Your task to perform on an android device: change notifications settings Image 0: 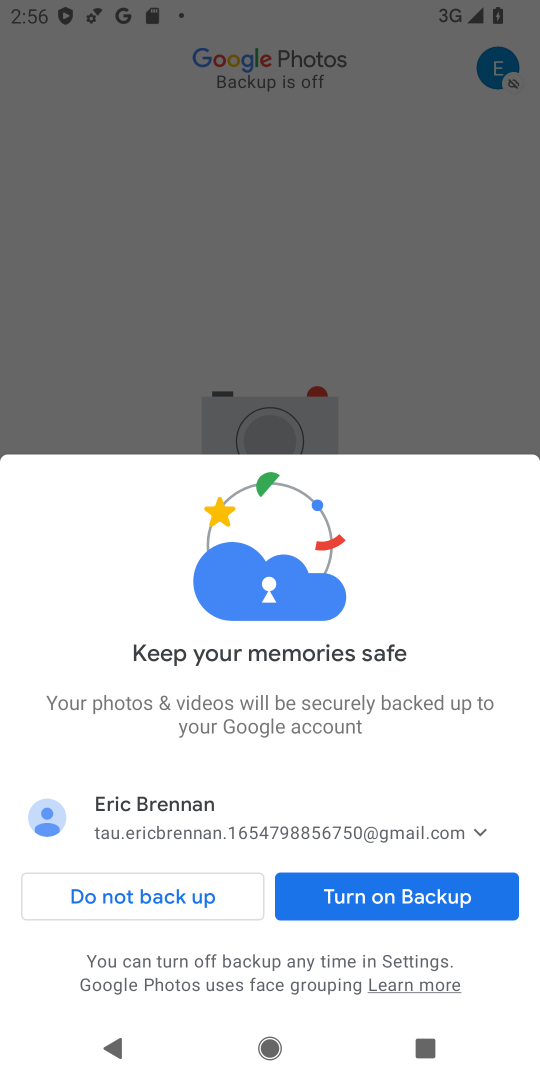
Step 0: press back button
Your task to perform on an android device: change notifications settings Image 1: 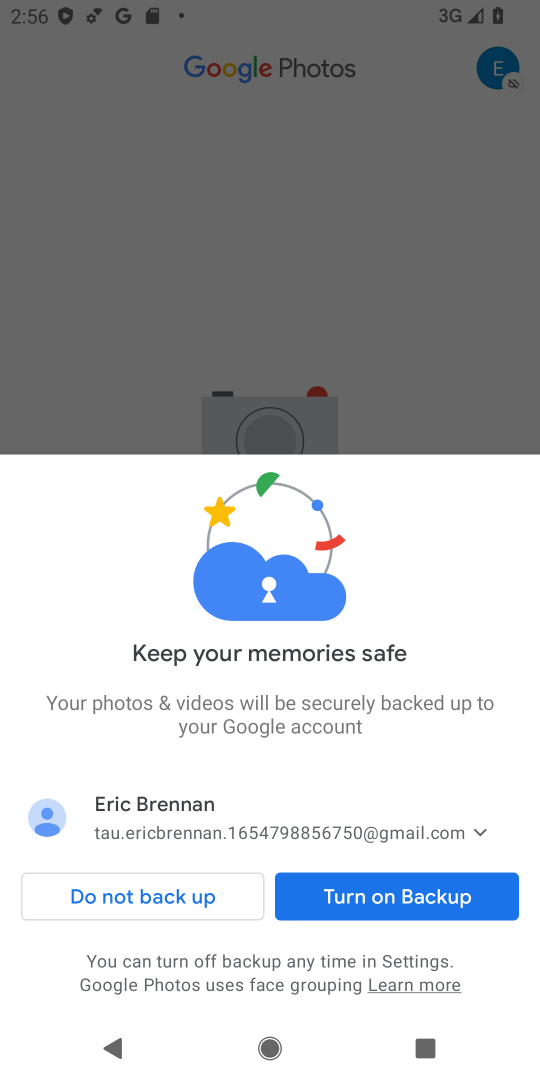
Step 1: press home button
Your task to perform on an android device: change notifications settings Image 2: 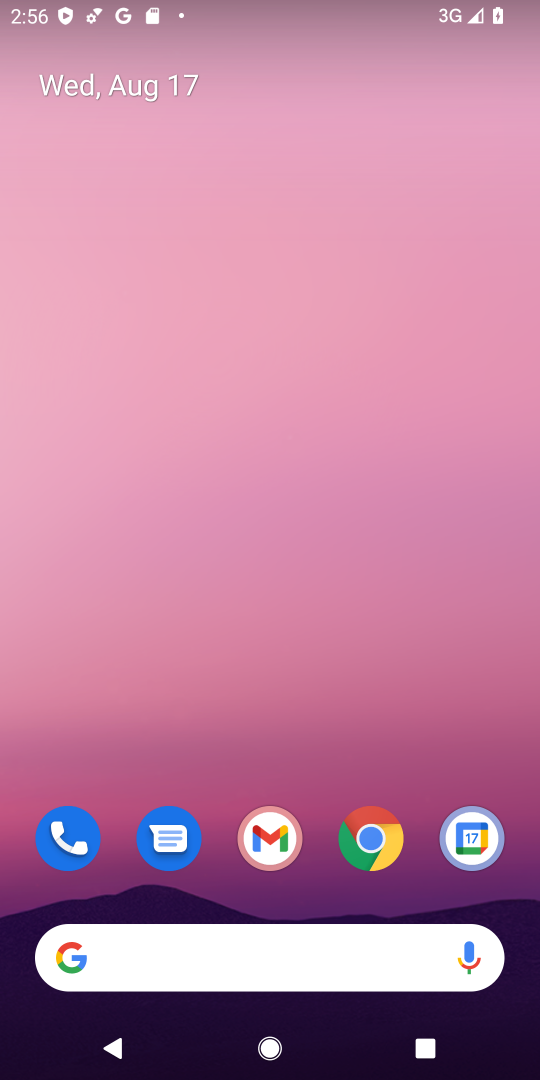
Step 2: drag from (221, 923) to (415, 87)
Your task to perform on an android device: change notifications settings Image 3: 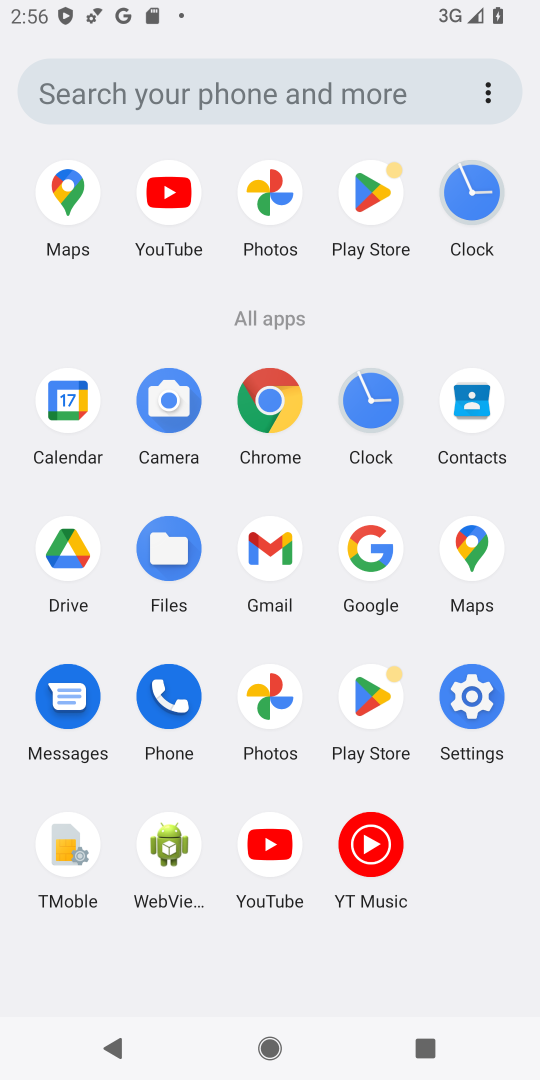
Step 3: click (474, 696)
Your task to perform on an android device: change notifications settings Image 4: 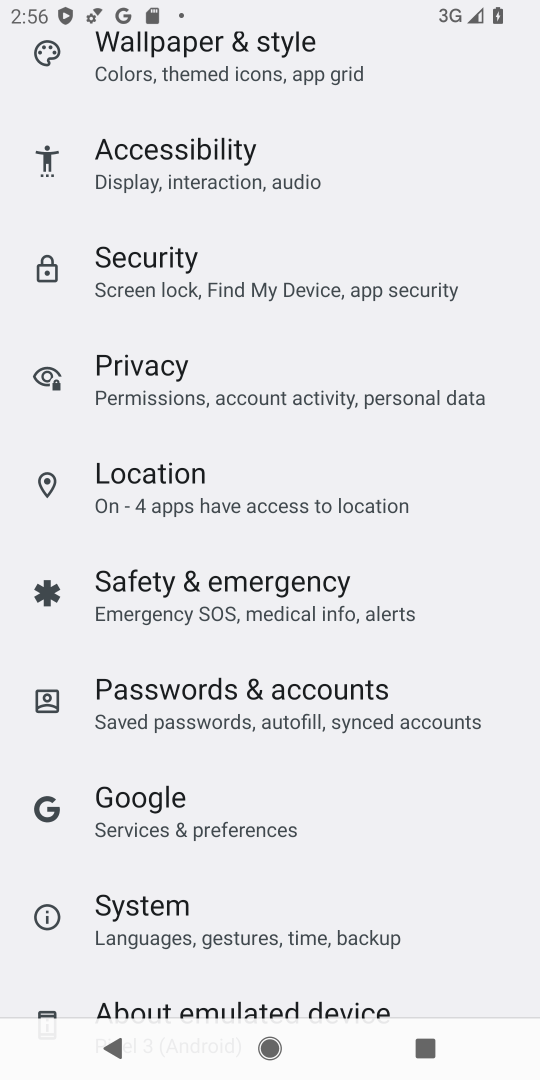
Step 4: drag from (308, 221) to (255, 962)
Your task to perform on an android device: change notifications settings Image 5: 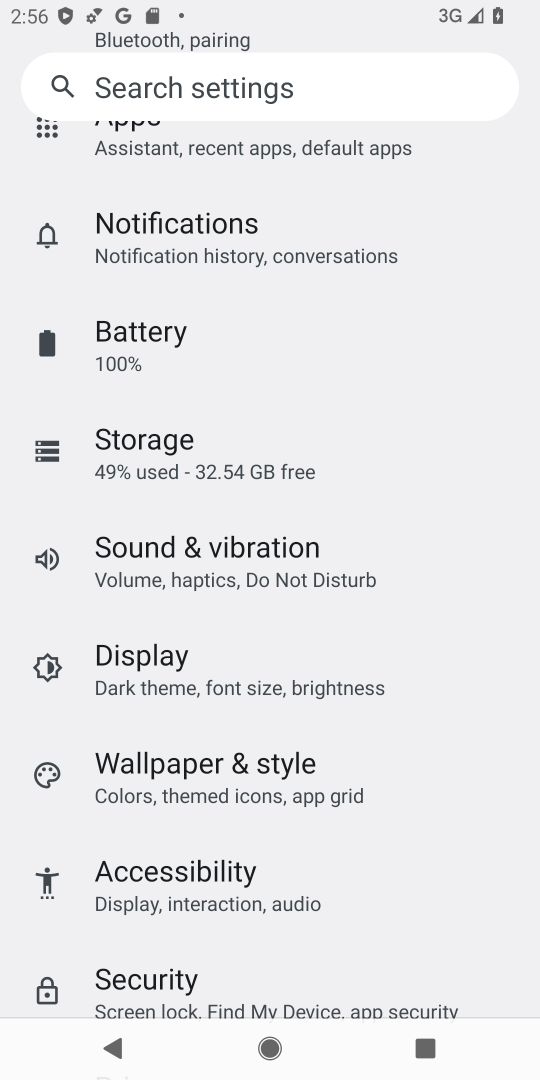
Step 5: click (260, 224)
Your task to perform on an android device: change notifications settings Image 6: 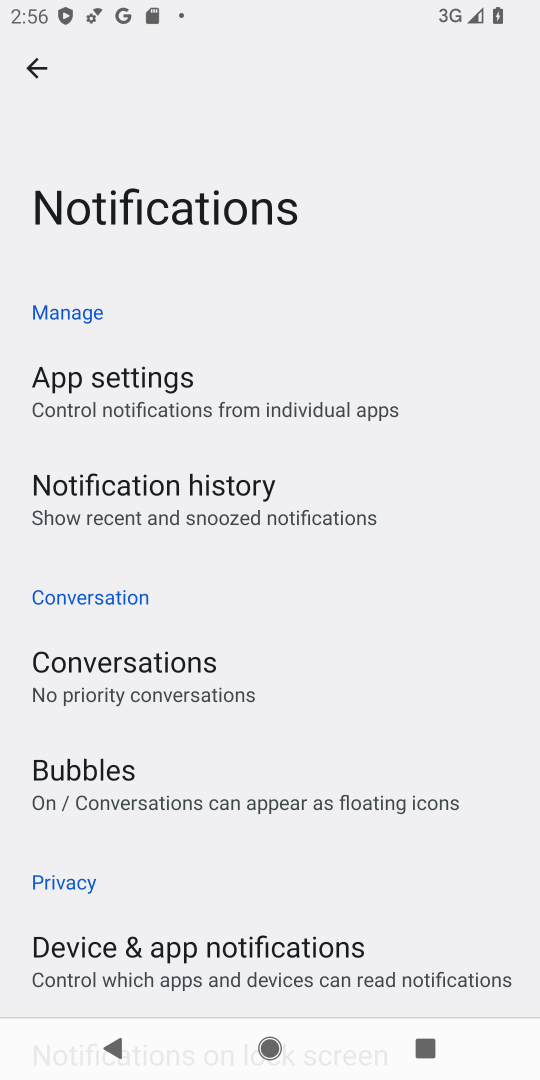
Step 6: drag from (374, 898) to (459, 53)
Your task to perform on an android device: change notifications settings Image 7: 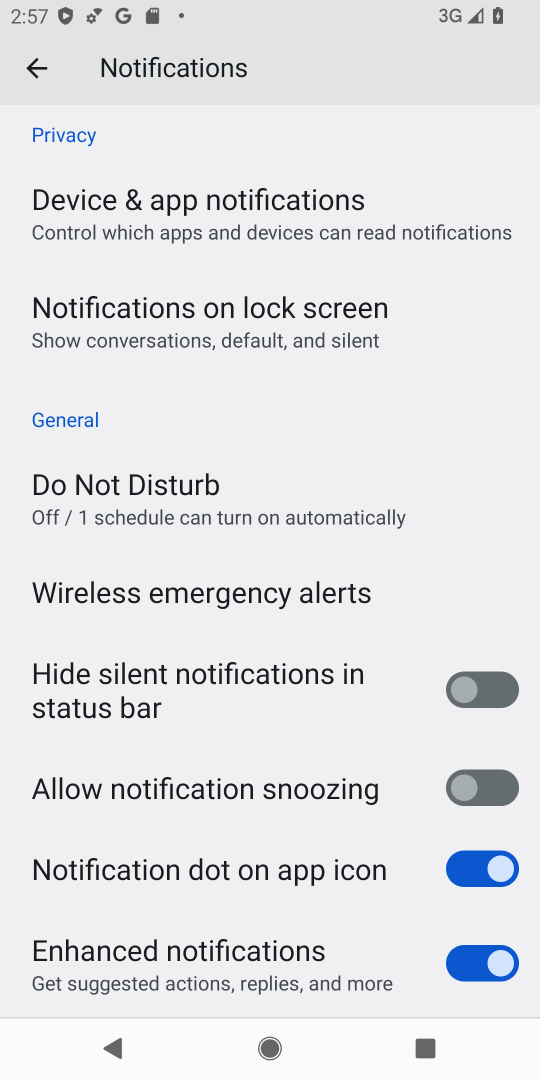
Step 7: click (476, 794)
Your task to perform on an android device: change notifications settings Image 8: 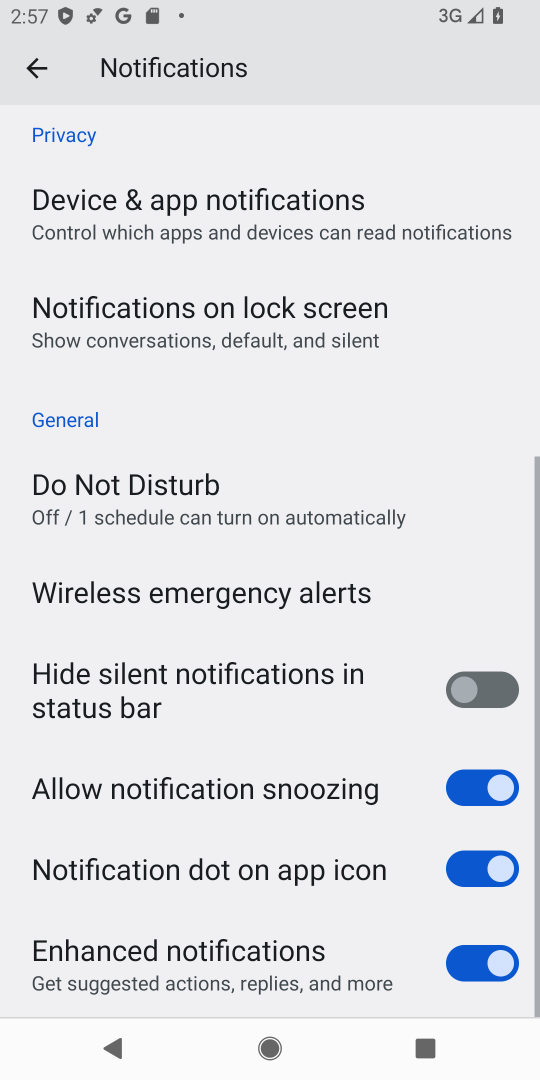
Step 8: task complete